Your task to perform on an android device: Search for Italian restaurants on Maps Image 0: 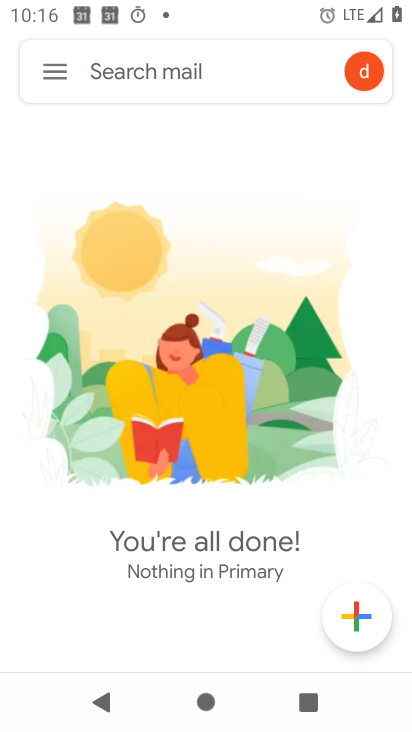
Step 0: press home button
Your task to perform on an android device: Search for Italian restaurants on Maps Image 1: 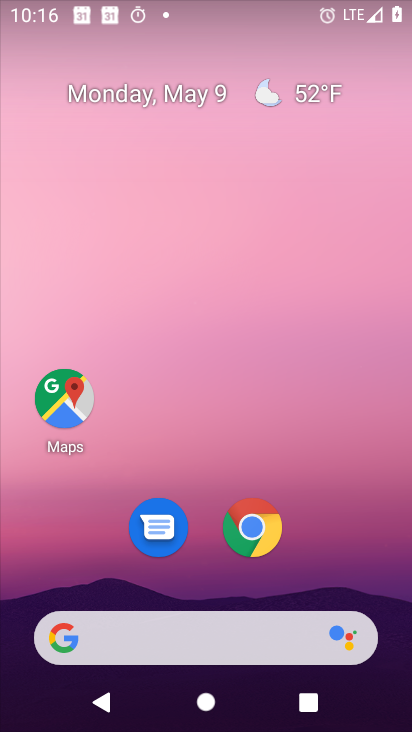
Step 1: click (66, 401)
Your task to perform on an android device: Search for Italian restaurants on Maps Image 2: 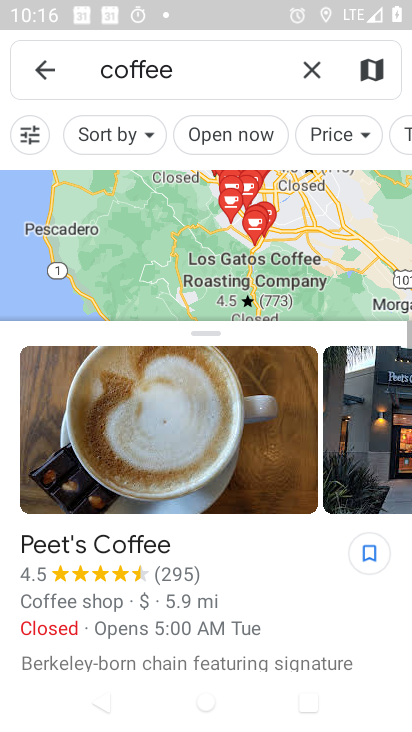
Step 2: click (321, 72)
Your task to perform on an android device: Search for Italian restaurants on Maps Image 3: 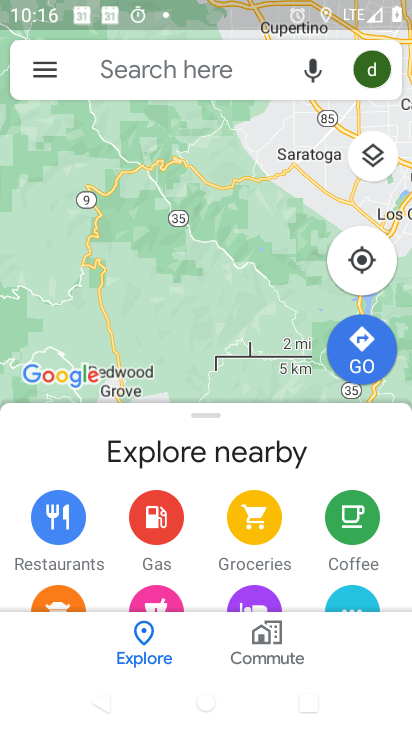
Step 3: click (195, 66)
Your task to perform on an android device: Search for Italian restaurants on Maps Image 4: 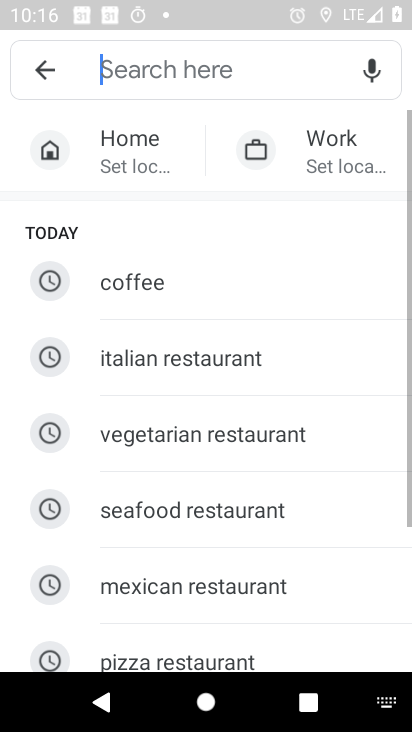
Step 4: click (165, 381)
Your task to perform on an android device: Search for Italian restaurants on Maps Image 5: 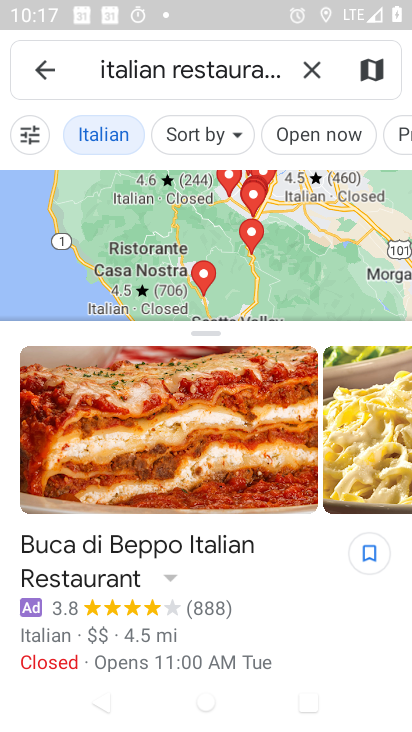
Step 5: task complete